Your task to perform on an android device: What is the recent news? Image 0: 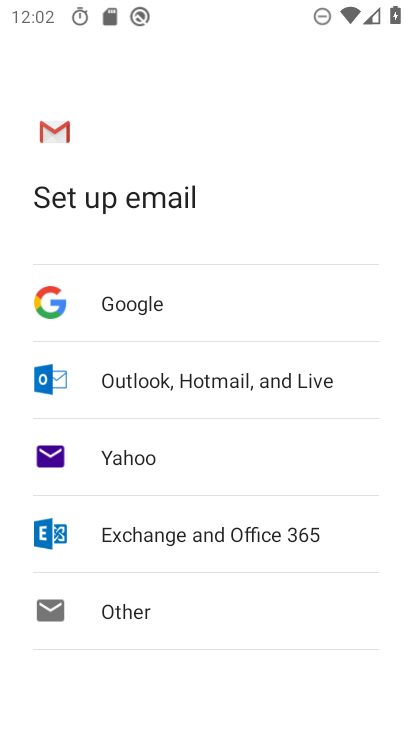
Step 0: press back button
Your task to perform on an android device: What is the recent news? Image 1: 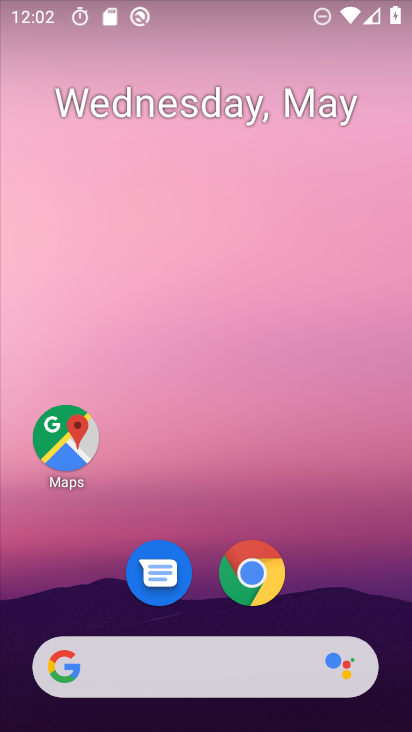
Step 1: drag from (314, 546) to (220, 6)
Your task to perform on an android device: What is the recent news? Image 2: 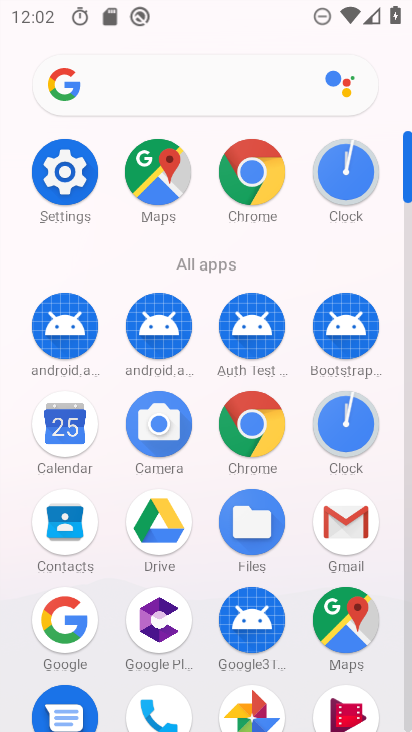
Step 2: drag from (14, 558) to (11, 211)
Your task to perform on an android device: What is the recent news? Image 3: 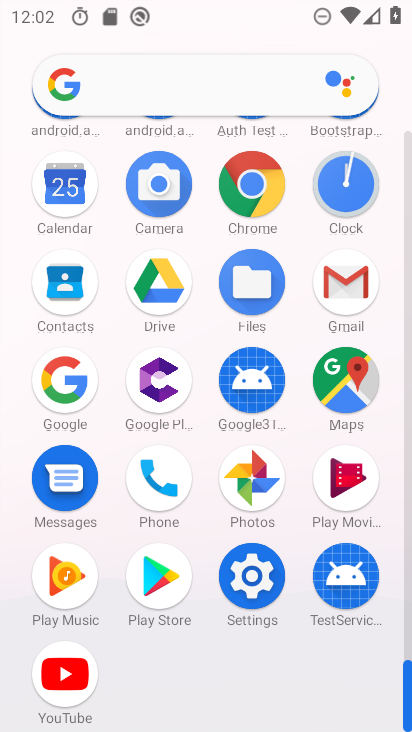
Step 3: click (252, 179)
Your task to perform on an android device: What is the recent news? Image 4: 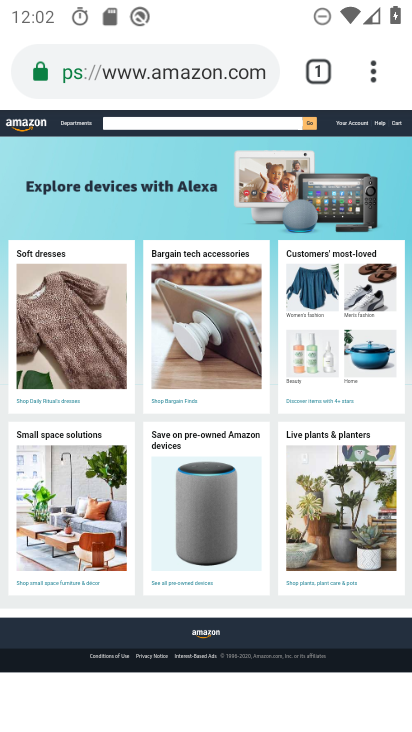
Step 4: click (197, 70)
Your task to perform on an android device: What is the recent news? Image 5: 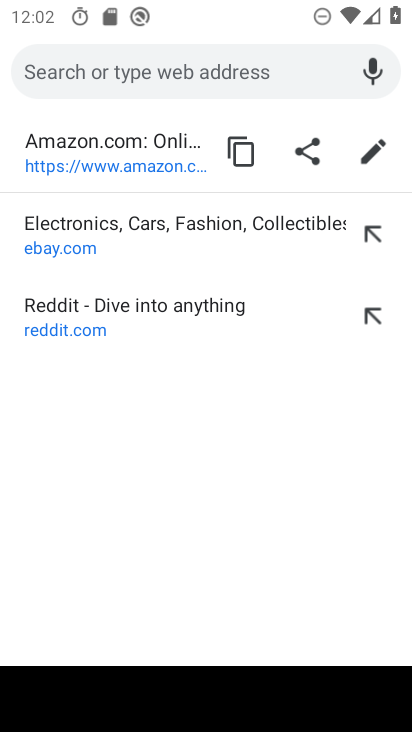
Step 5: type "What is the recent news?"
Your task to perform on an android device: What is the recent news? Image 6: 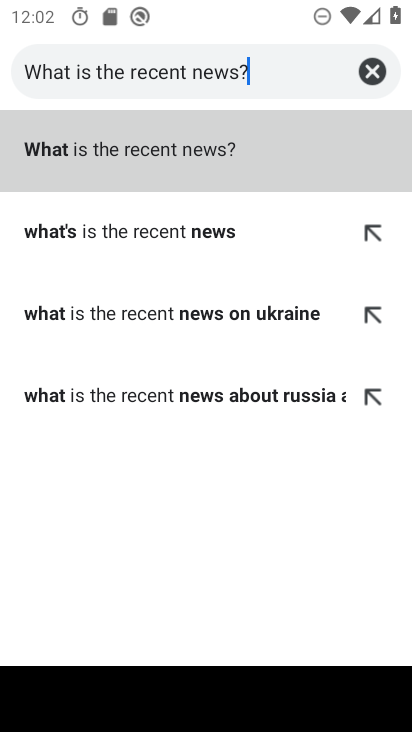
Step 6: type ""
Your task to perform on an android device: What is the recent news? Image 7: 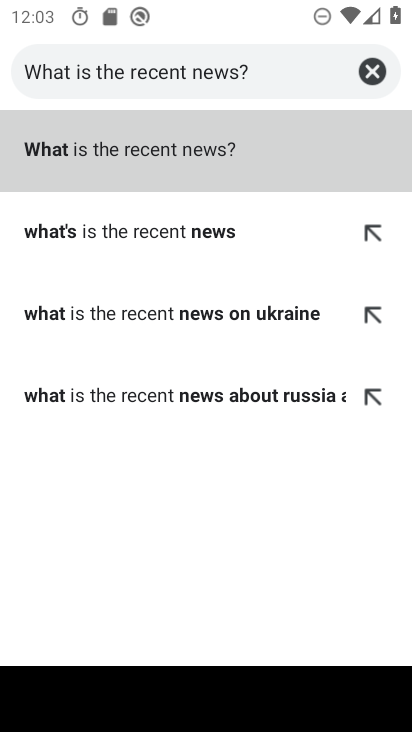
Step 7: click (188, 164)
Your task to perform on an android device: What is the recent news? Image 8: 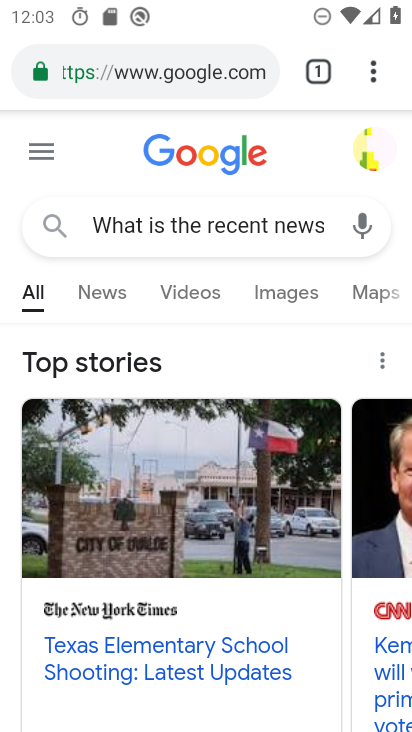
Step 8: task complete